Your task to perform on an android device: Search for pizza restaurants on Maps Image 0: 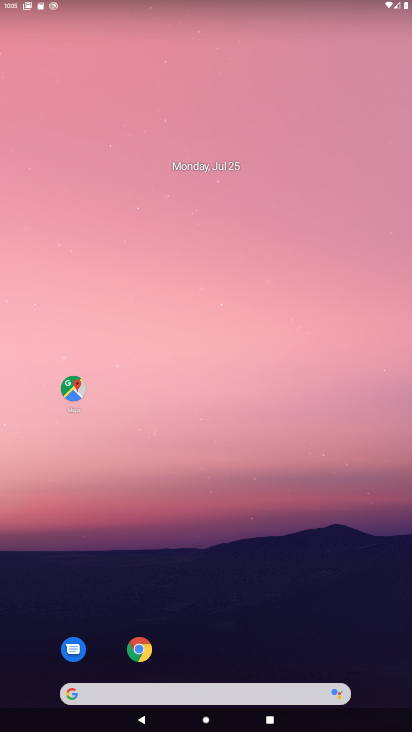
Step 0: click (75, 388)
Your task to perform on an android device: Search for pizza restaurants on Maps Image 1: 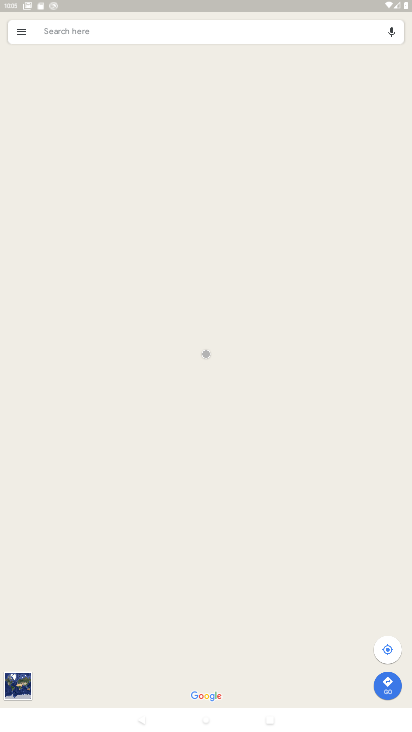
Step 1: click (115, 34)
Your task to perform on an android device: Search for pizza restaurants on Maps Image 2: 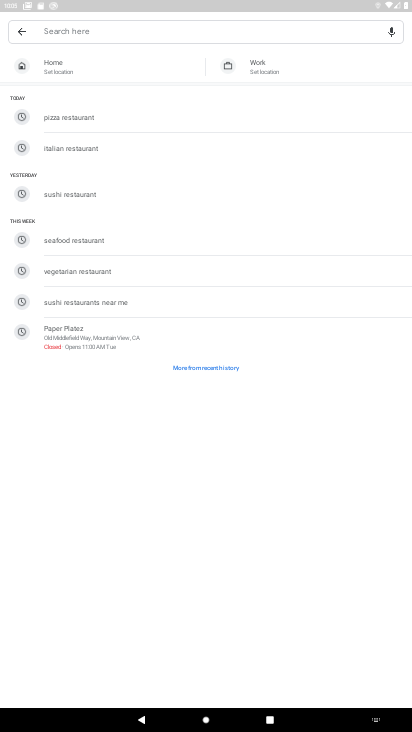
Step 2: type "pizza restaurants"
Your task to perform on an android device: Search for pizza restaurants on Maps Image 3: 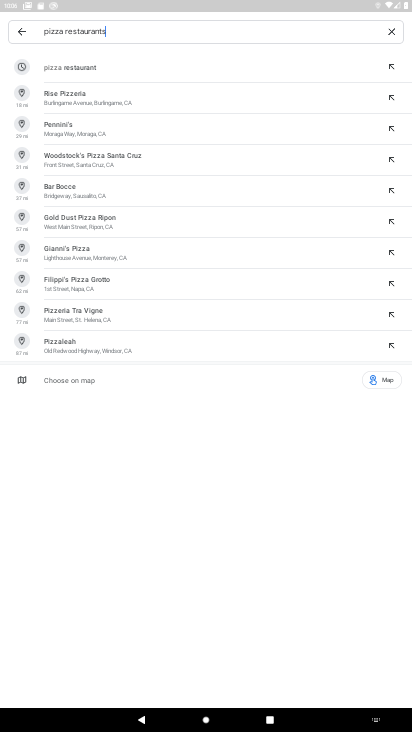
Step 3: click (55, 65)
Your task to perform on an android device: Search for pizza restaurants on Maps Image 4: 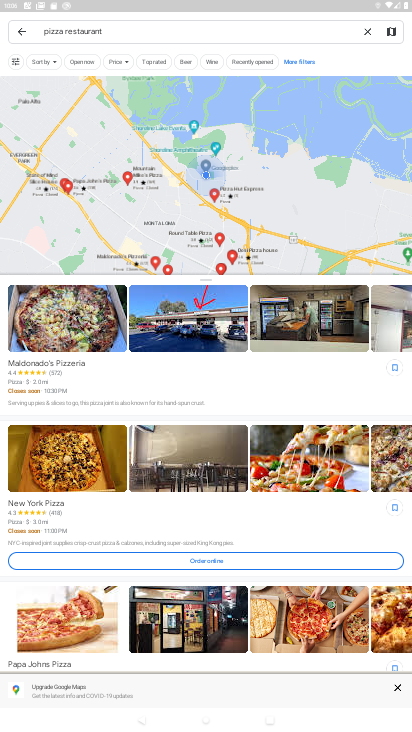
Step 4: task complete